Your task to perform on an android device: turn off improve location accuracy Image 0: 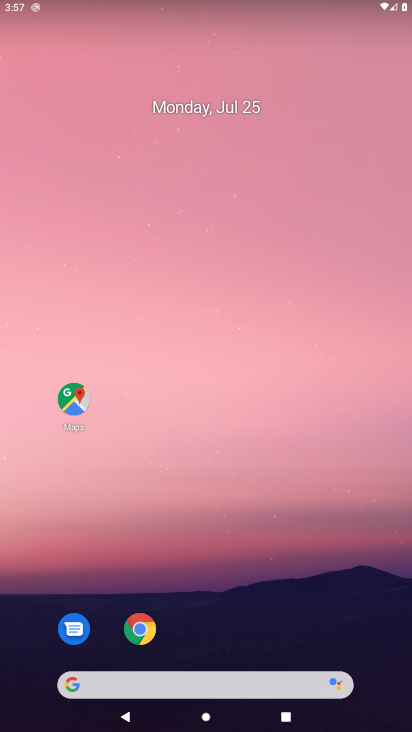
Step 0: drag from (45, 682) to (185, 307)
Your task to perform on an android device: turn off improve location accuracy Image 1: 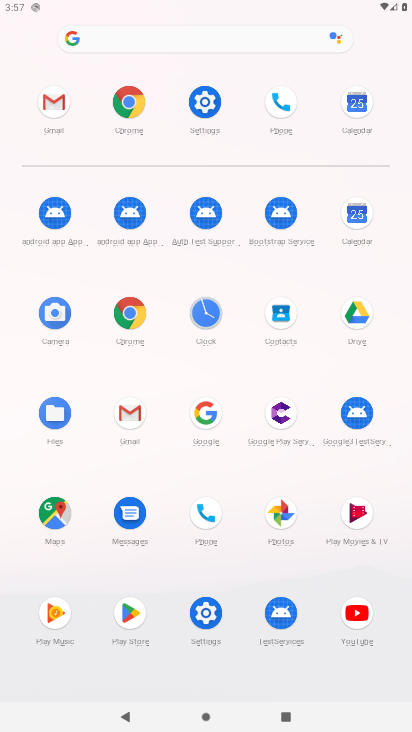
Step 1: click (203, 613)
Your task to perform on an android device: turn off improve location accuracy Image 2: 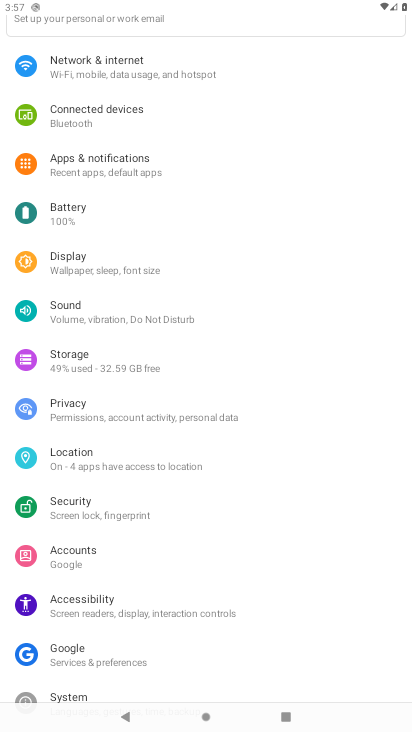
Step 2: click (76, 447)
Your task to perform on an android device: turn off improve location accuracy Image 3: 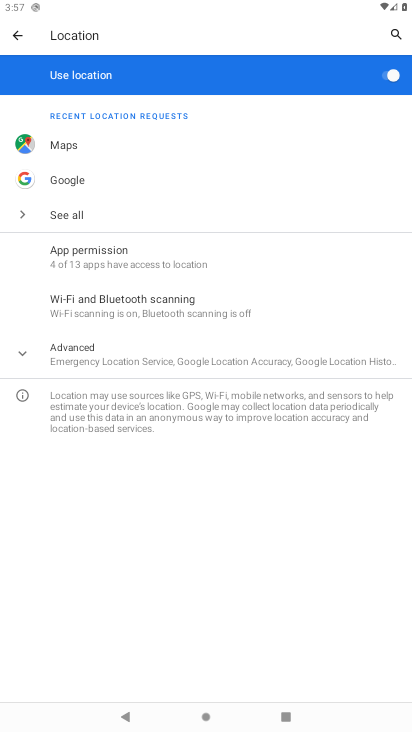
Step 3: click (55, 346)
Your task to perform on an android device: turn off improve location accuracy Image 4: 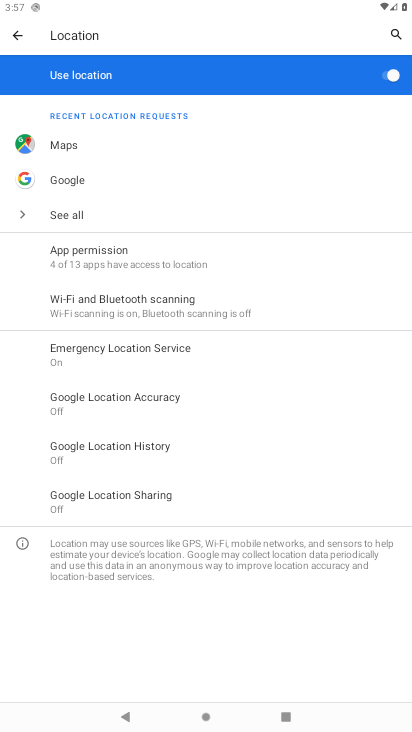
Step 4: task complete